Your task to perform on an android device: turn vacation reply on in the gmail app Image 0: 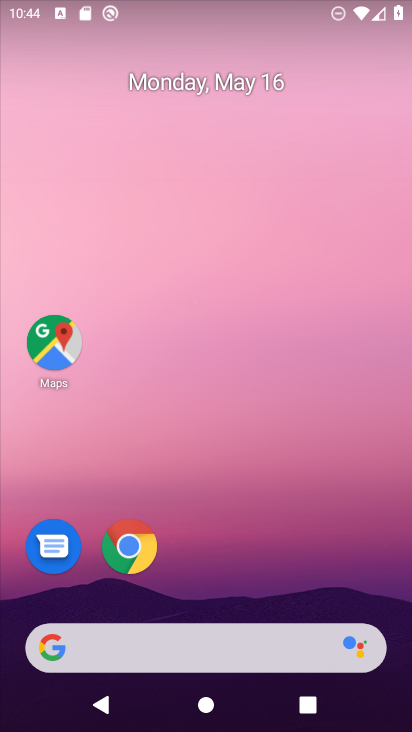
Step 0: drag from (208, 606) to (344, 223)
Your task to perform on an android device: turn vacation reply on in the gmail app Image 1: 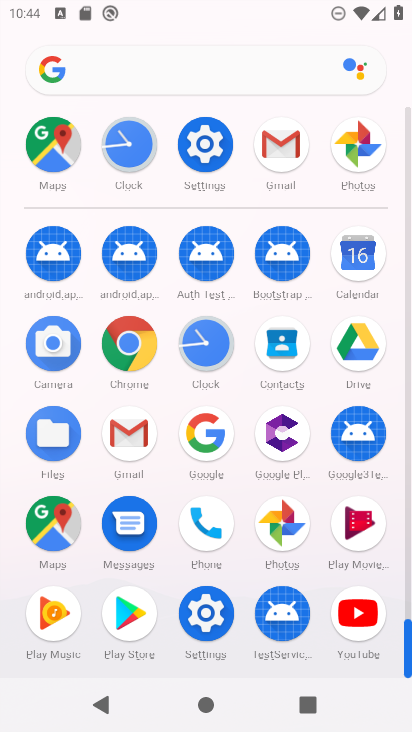
Step 1: click (289, 188)
Your task to perform on an android device: turn vacation reply on in the gmail app Image 2: 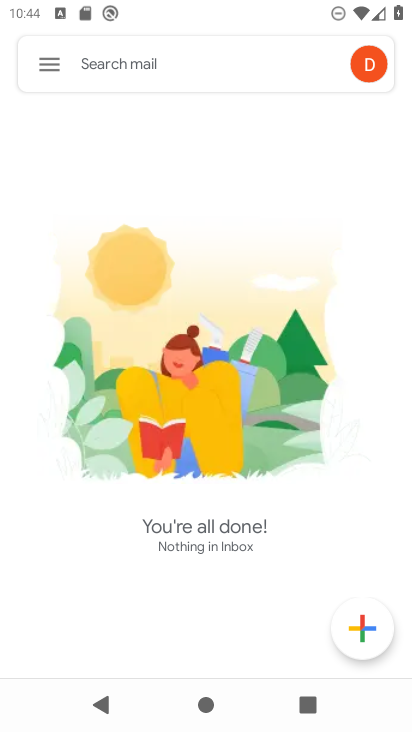
Step 2: click (37, 62)
Your task to perform on an android device: turn vacation reply on in the gmail app Image 3: 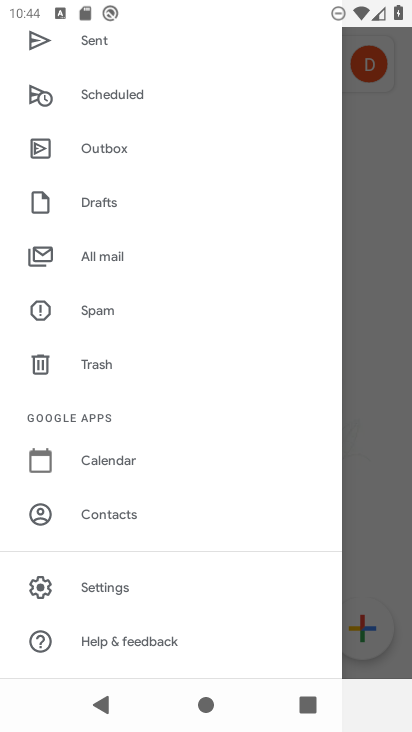
Step 3: click (89, 587)
Your task to perform on an android device: turn vacation reply on in the gmail app Image 4: 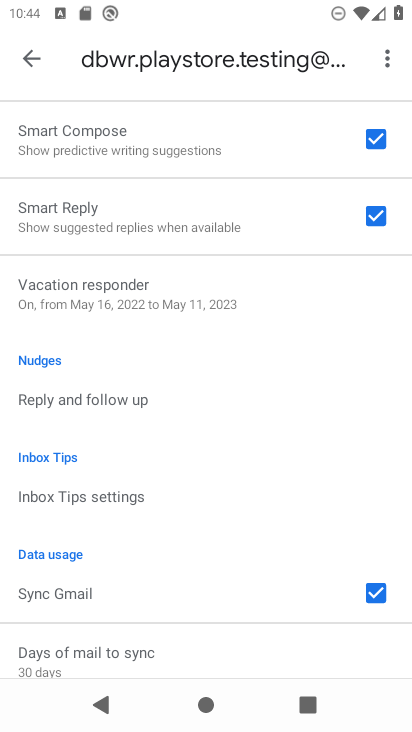
Step 4: drag from (124, 611) to (210, 162)
Your task to perform on an android device: turn vacation reply on in the gmail app Image 5: 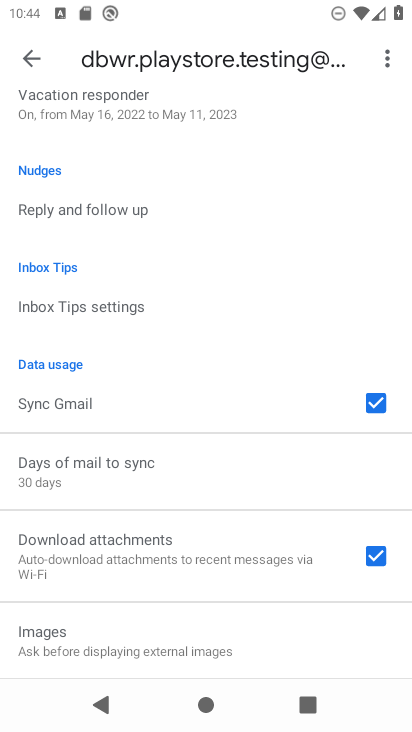
Step 5: drag from (123, 630) to (177, 78)
Your task to perform on an android device: turn vacation reply on in the gmail app Image 6: 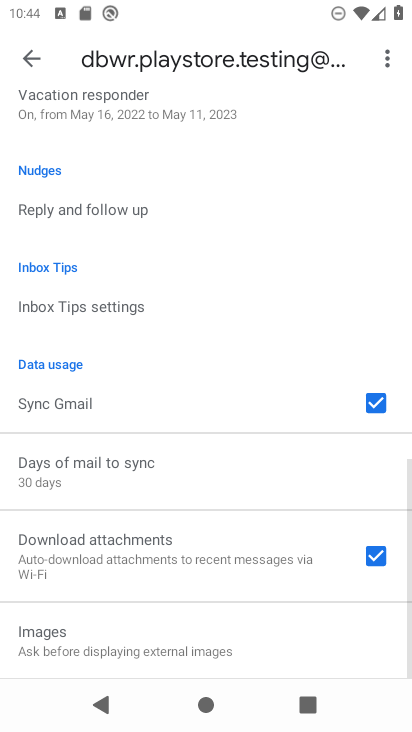
Step 6: drag from (207, 174) to (210, 731)
Your task to perform on an android device: turn vacation reply on in the gmail app Image 7: 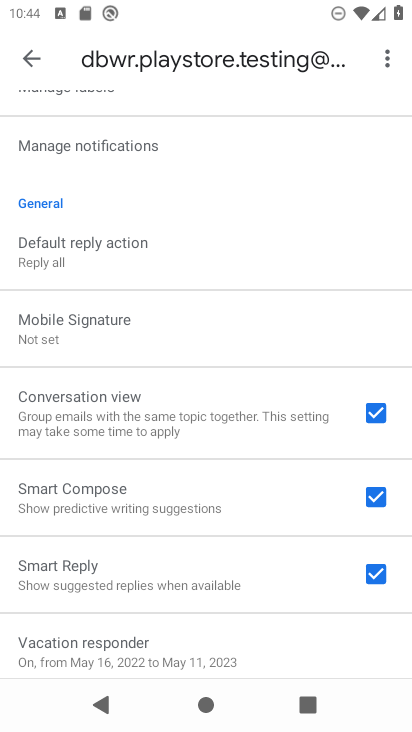
Step 7: click (160, 629)
Your task to perform on an android device: turn vacation reply on in the gmail app Image 8: 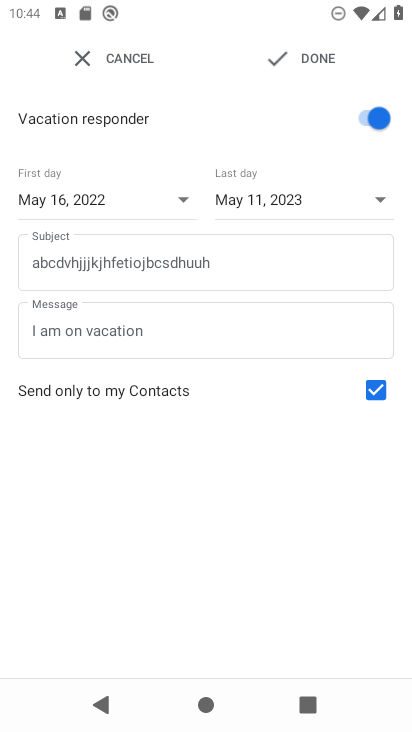
Step 8: click (310, 55)
Your task to perform on an android device: turn vacation reply on in the gmail app Image 9: 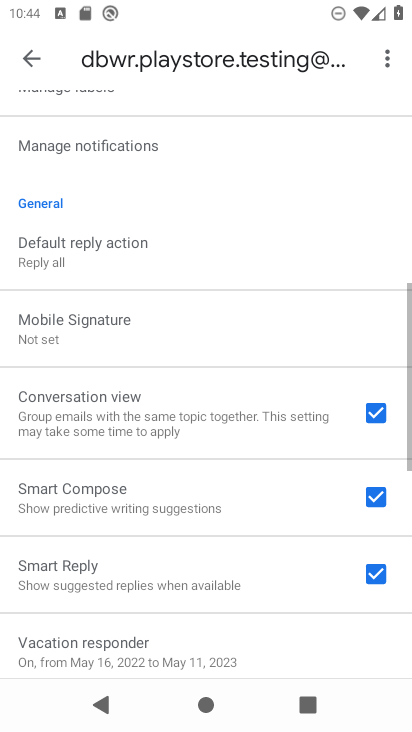
Step 9: task complete